Your task to perform on an android device: What's on my calendar today? Image 0: 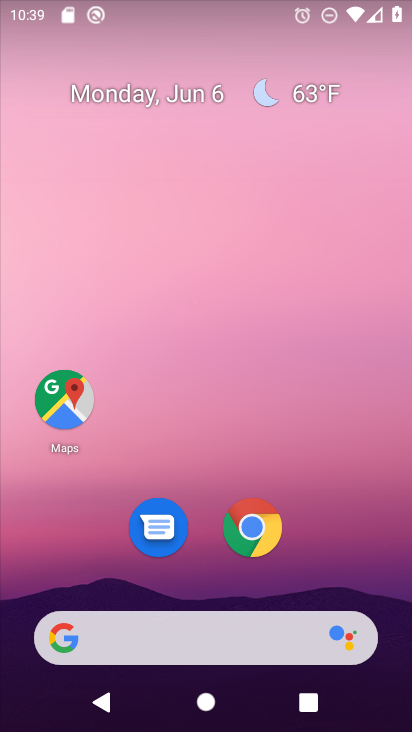
Step 0: drag from (362, 569) to (371, 153)
Your task to perform on an android device: What's on my calendar today? Image 1: 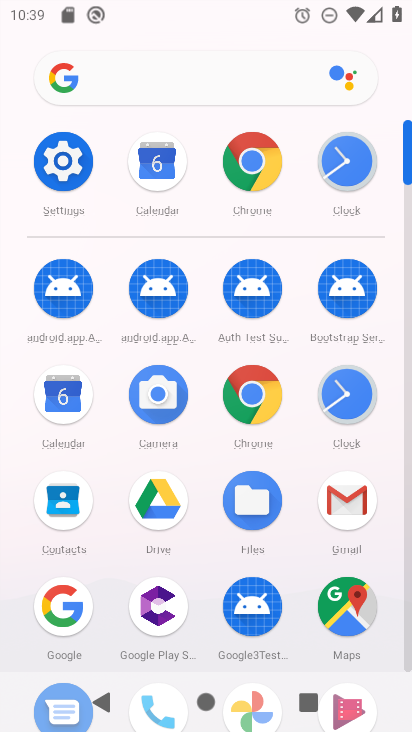
Step 1: click (84, 407)
Your task to perform on an android device: What's on my calendar today? Image 2: 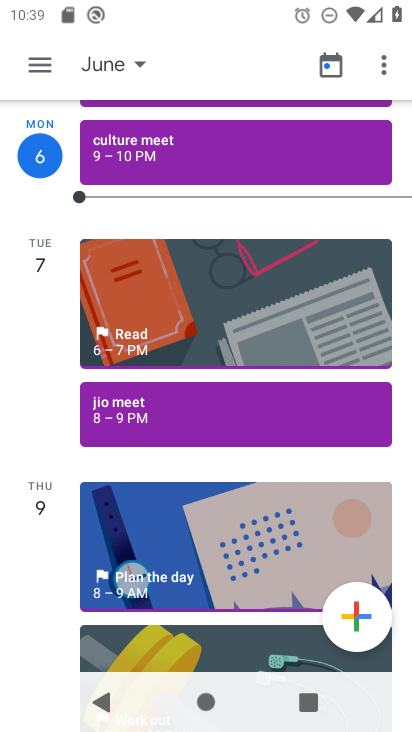
Step 2: task complete